Your task to perform on an android device: check google app version Image 0: 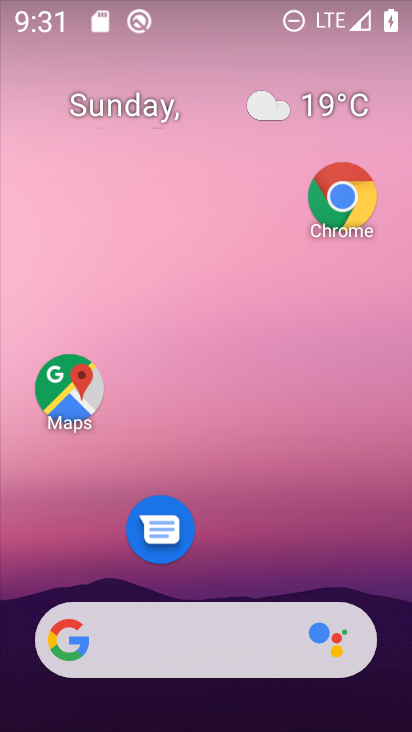
Step 0: press home button
Your task to perform on an android device: check google app version Image 1: 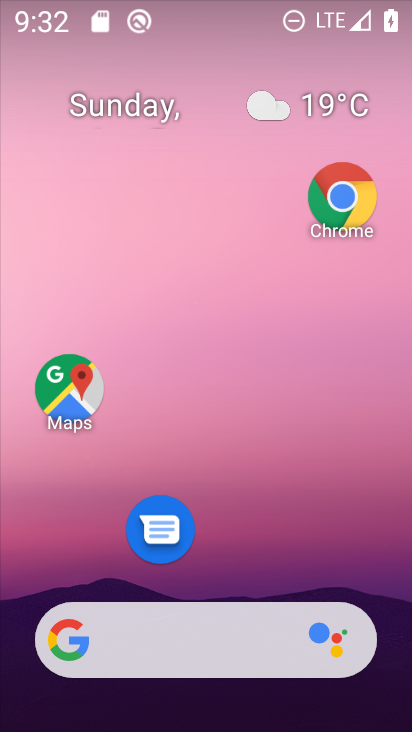
Step 1: drag from (247, 571) to (246, 35)
Your task to perform on an android device: check google app version Image 2: 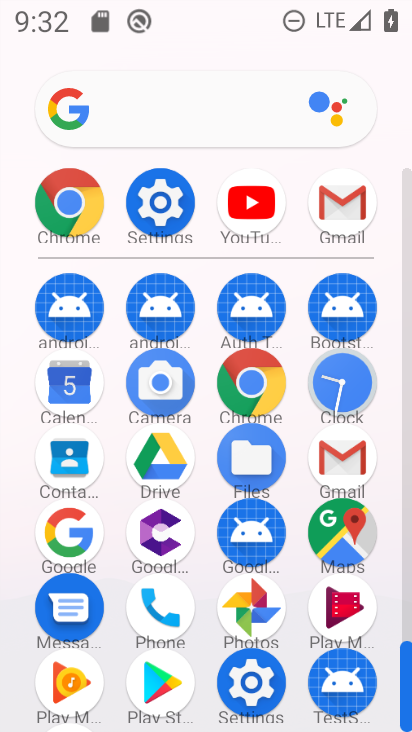
Step 2: click (64, 525)
Your task to perform on an android device: check google app version Image 3: 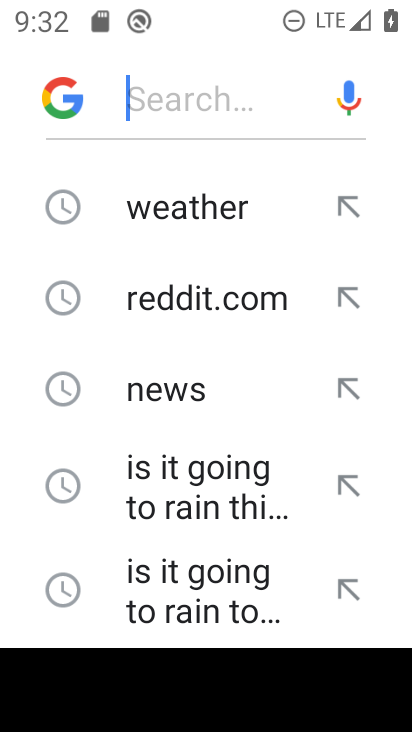
Step 3: press back button
Your task to perform on an android device: check google app version Image 4: 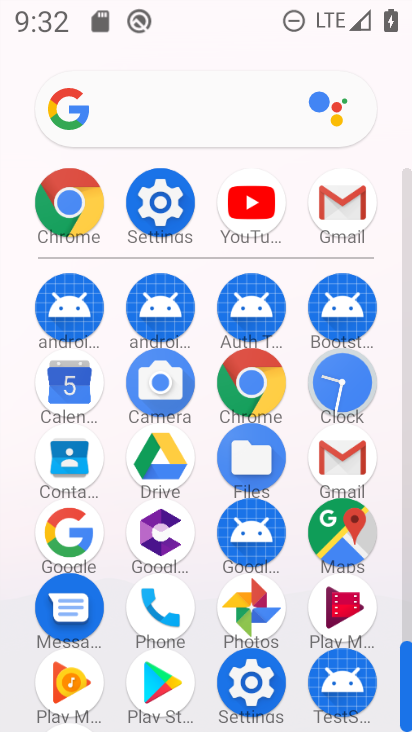
Step 4: click (66, 524)
Your task to perform on an android device: check google app version Image 5: 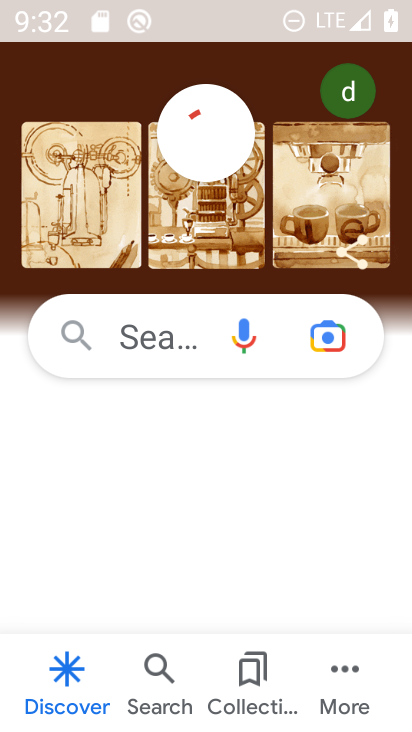
Step 5: click (345, 664)
Your task to perform on an android device: check google app version Image 6: 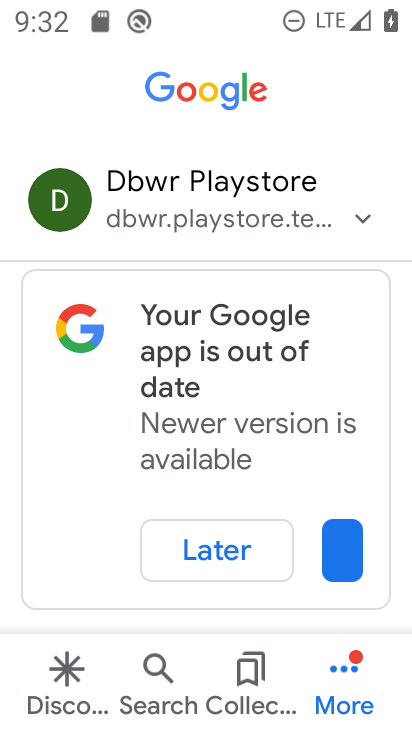
Step 6: click (214, 548)
Your task to perform on an android device: check google app version Image 7: 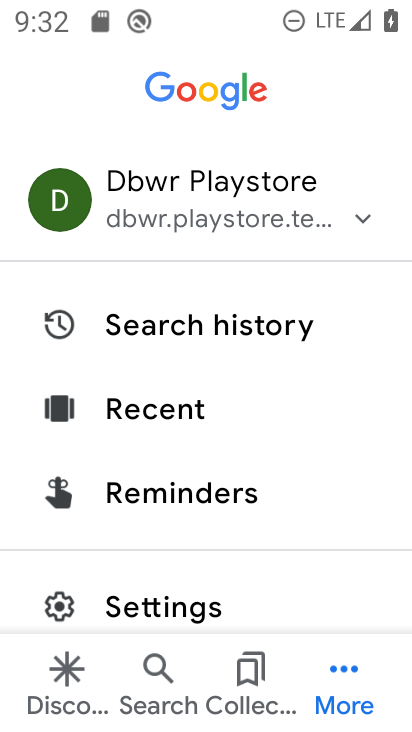
Step 7: click (248, 593)
Your task to perform on an android device: check google app version Image 8: 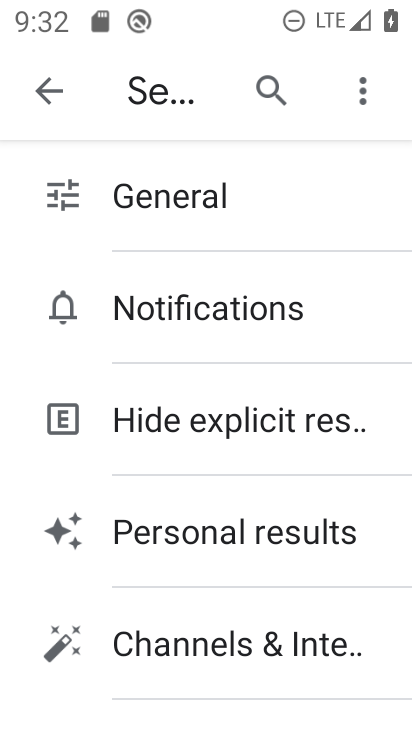
Step 8: drag from (225, 622) to (273, 253)
Your task to perform on an android device: check google app version Image 9: 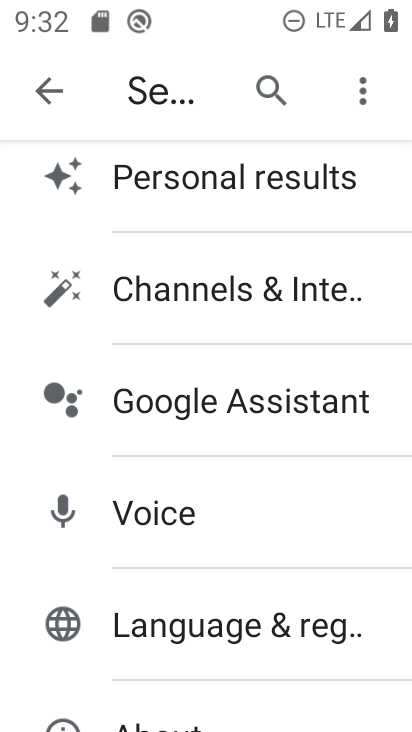
Step 9: drag from (269, 673) to (269, 185)
Your task to perform on an android device: check google app version Image 10: 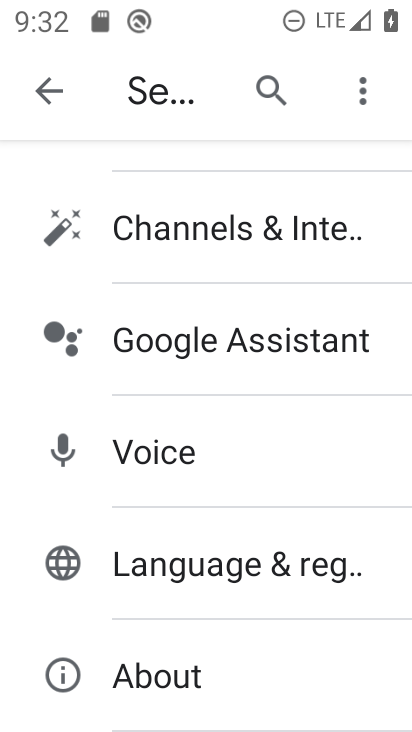
Step 10: click (227, 664)
Your task to perform on an android device: check google app version Image 11: 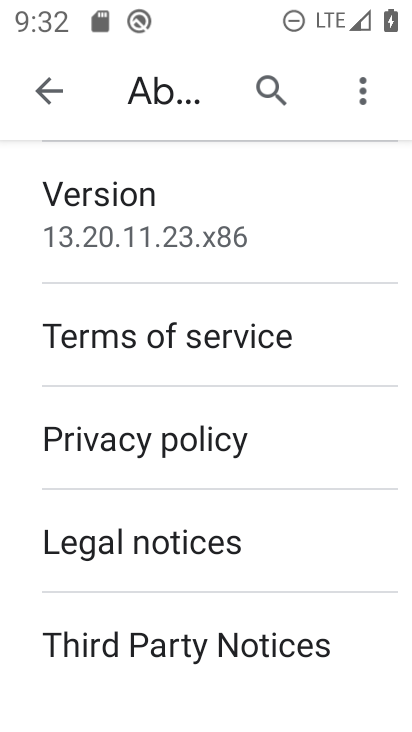
Step 11: task complete